Your task to perform on an android device: find snoozed emails in the gmail app Image 0: 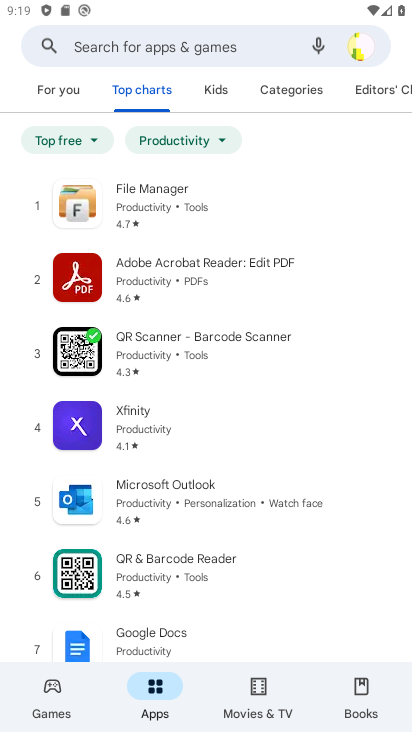
Step 0: press home button
Your task to perform on an android device: find snoozed emails in the gmail app Image 1: 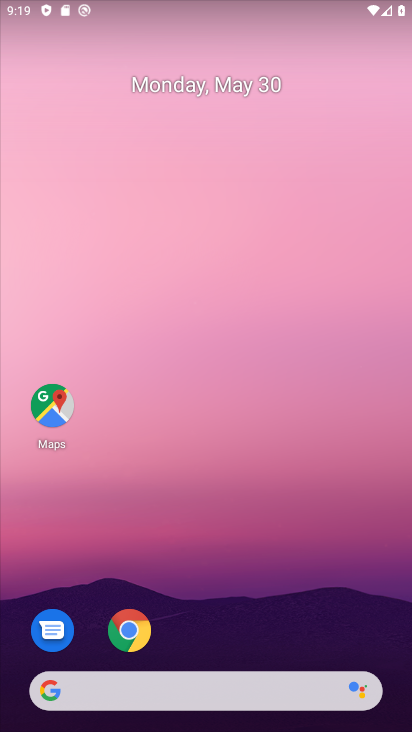
Step 1: drag from (266, 639) to (260, 325)
Your task to perform on an android device: find snoozed emails in the gmail app Image 2: 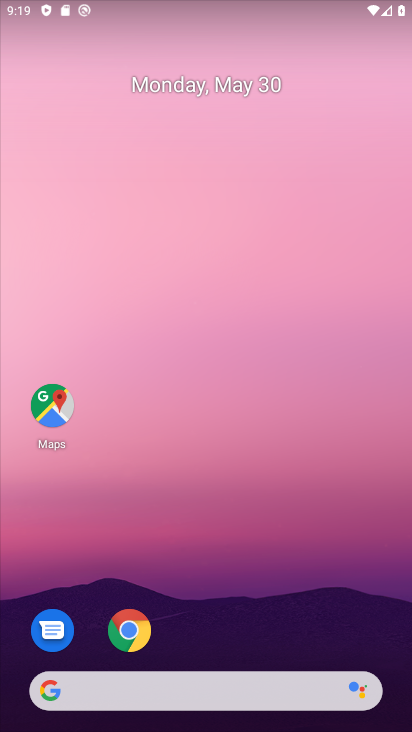
Step 2: drag from (236, 615) to (266, 95)
Your task to perform on an android device: find snoozed emails in the gmail app Image 3: 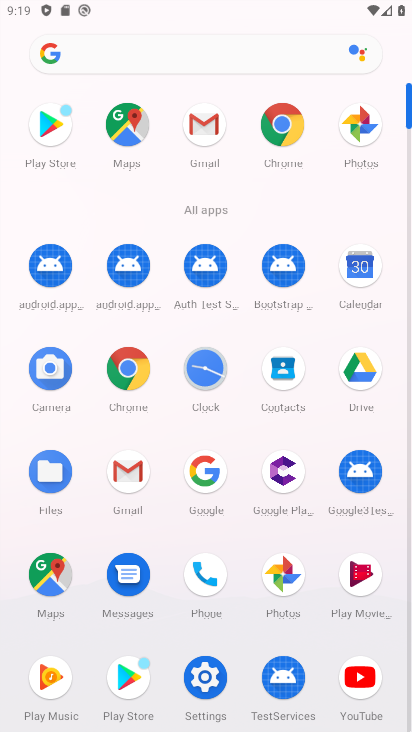
Step 3: click (137, 474)
Your task to perform on an android device: find snoozed emails in the gmail app Image 4: 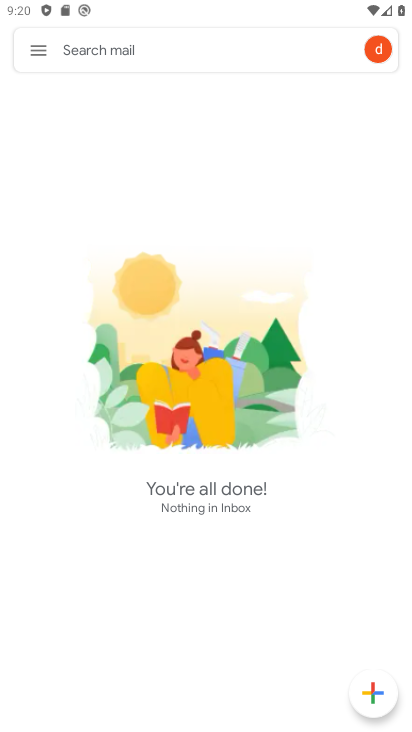
Step 4: task complete